Your task to perform on an android device: toggle translation in the chrome app Image 0: 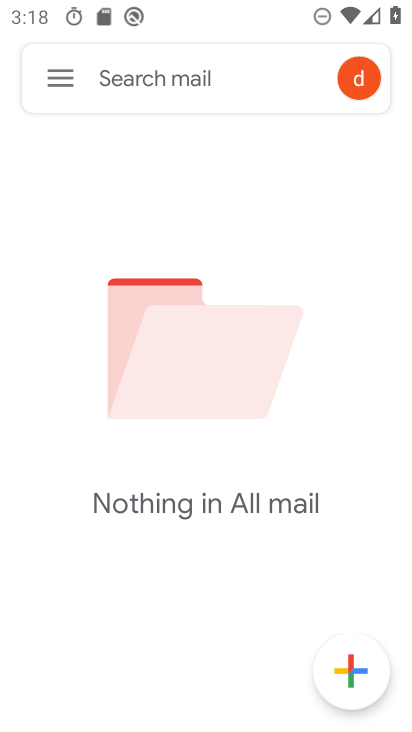
Step 0: press home button
Your task to perform on an android device: toggle translation in the chrome app Image 1: 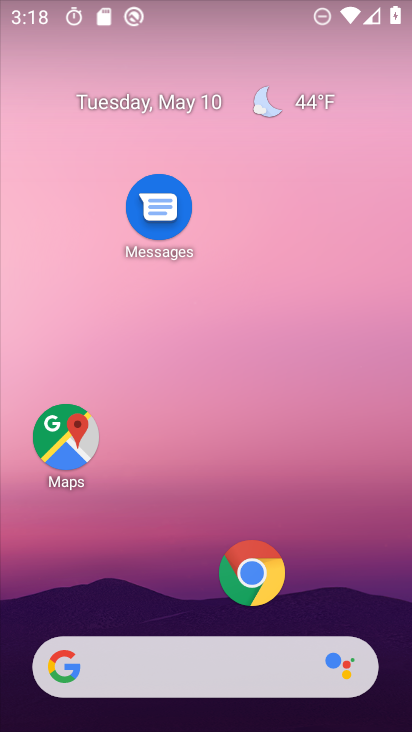
Step 1: click (239, 605)
Your task to perform on an android device: toggle translation in the chrome app Image 2: 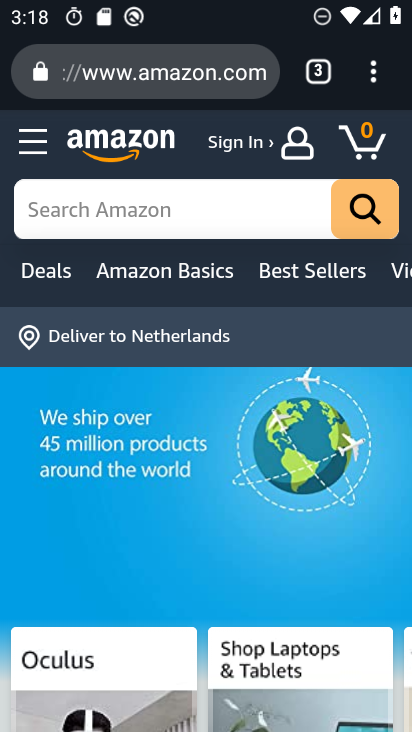
Step 2: click (376, 75)
Your task to perform on an android device: toggle translation in the chrome app Image 3: 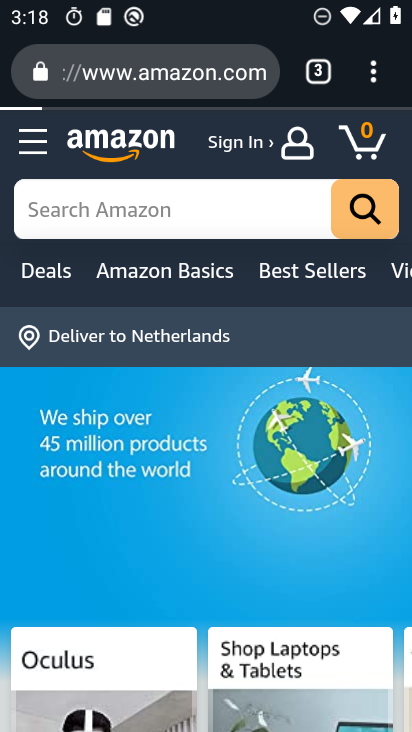
Step 3: drag from (122, 596) to (192, 394)
Your task to perform on an android device: toggle translation in the chrome app Image 4: 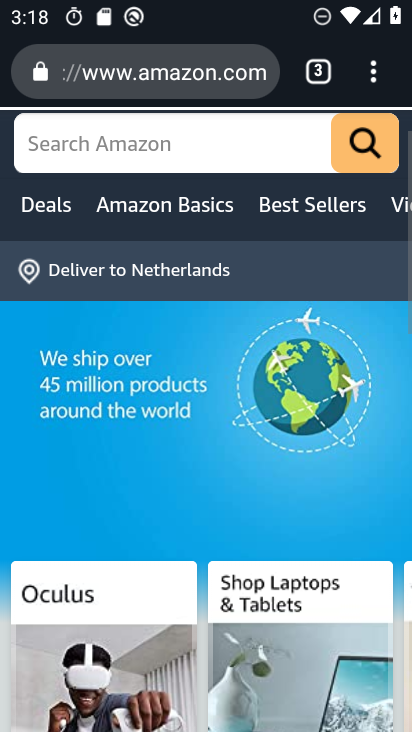
Step 4: drag from (372, 70) to (151, 567)
Your task to perform on an android device: toggle translation in the chrome app Image 5: 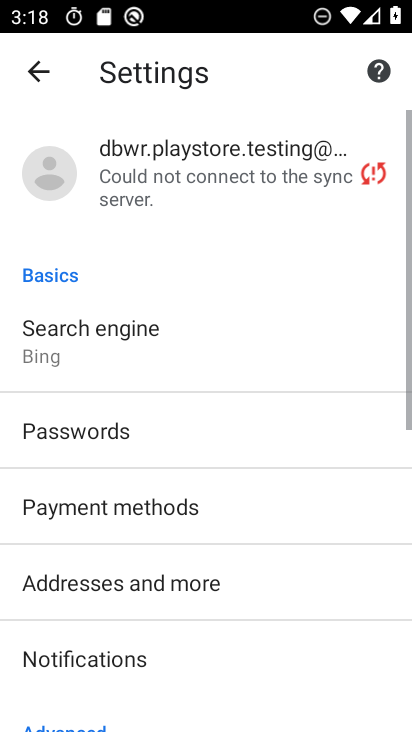
Step 5: drag from (234, 659) to (283, 259)
Your task to perform on an android device: toggle translation in the chrome app Image 6: 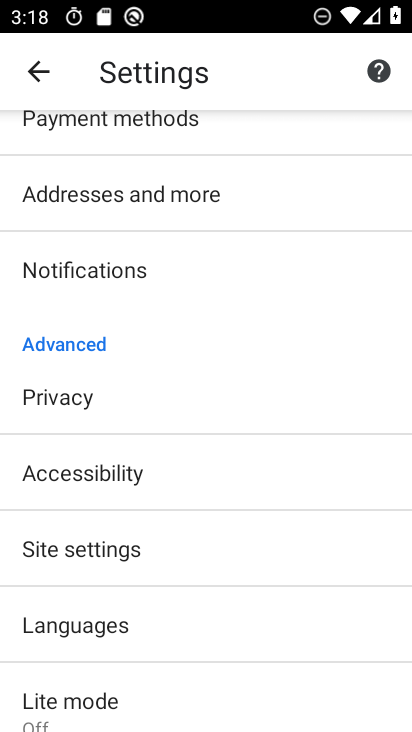
Step 6: click (111, 619)
Your task to perform on an android device: toggle translation in the chrome app Image 7: 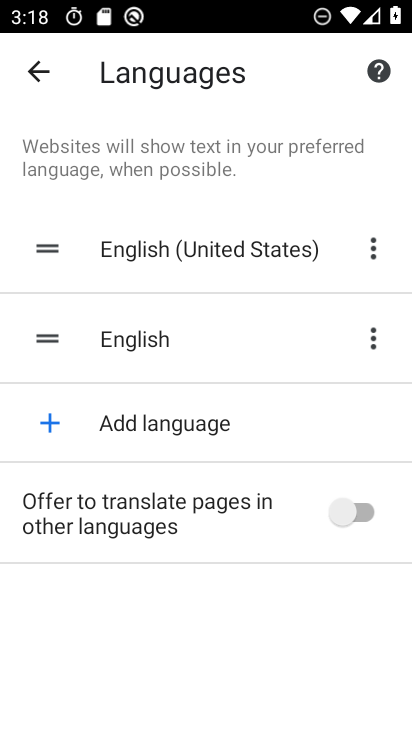
Step 7: click (369, 508)
Your task to perform on an android device: toggle translation in the chrome app Image 8: 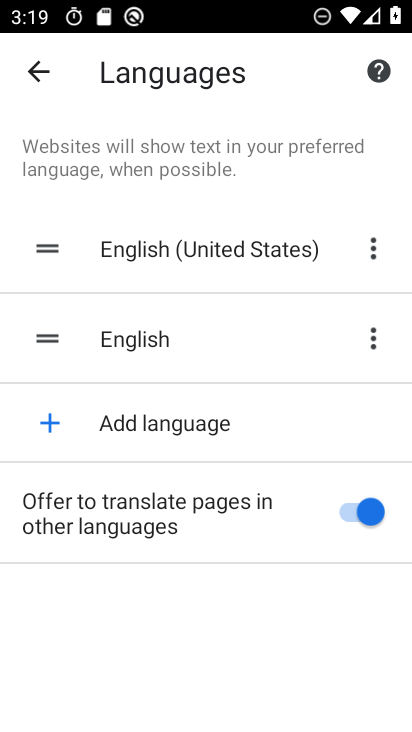
Step 8: task complete